Your task to perform on an android device: change alarm snooze length Image 0: 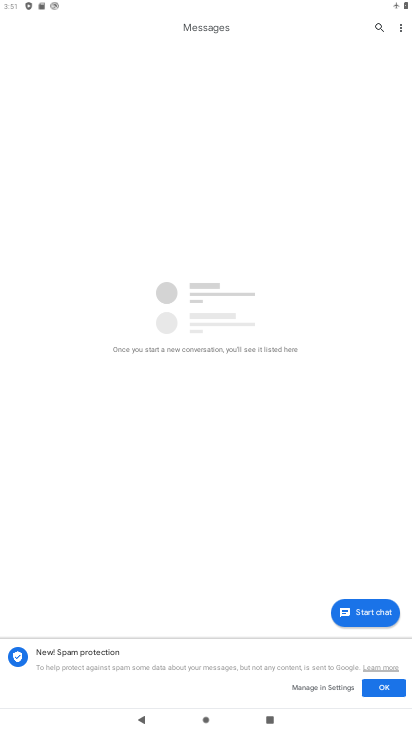
Step 0: press home button
Your task to perform on an android device: change alarm snooze length Image 1: 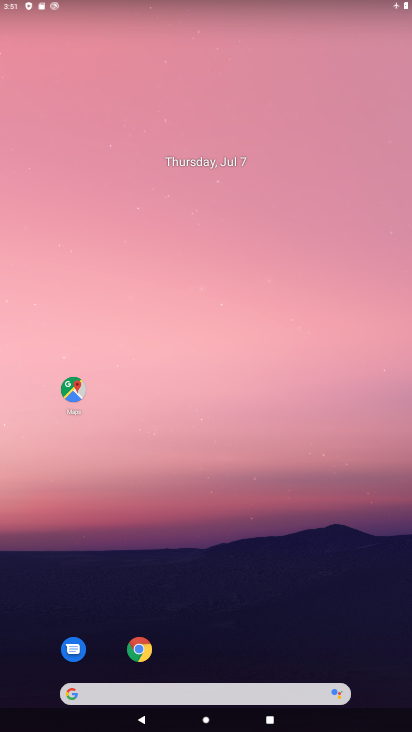
Step 1: click (292, 212)
Your task to perform on an android device: change alarm snooze length Image 2: 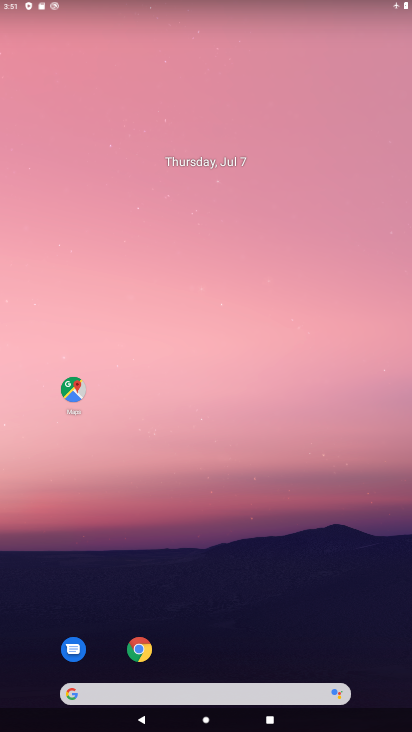
Step 2: drag from (180, 619) to (223, 195)
Your task to perform on an android device: change alarm snooze length Image 3: 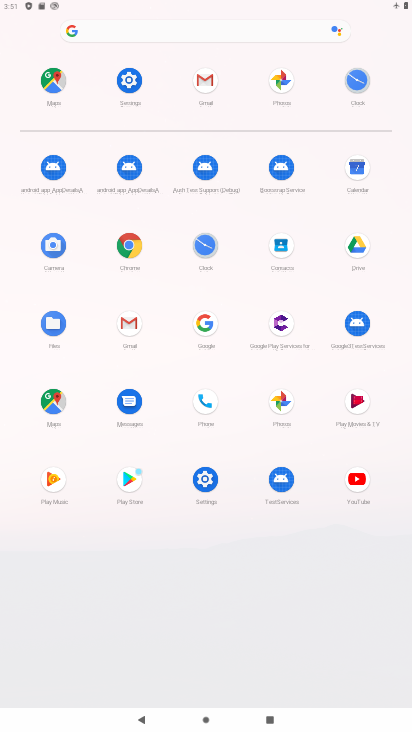
Step 3: click (207, 261)
Your task to perform on an android device: change alarm snooze length Image 4: 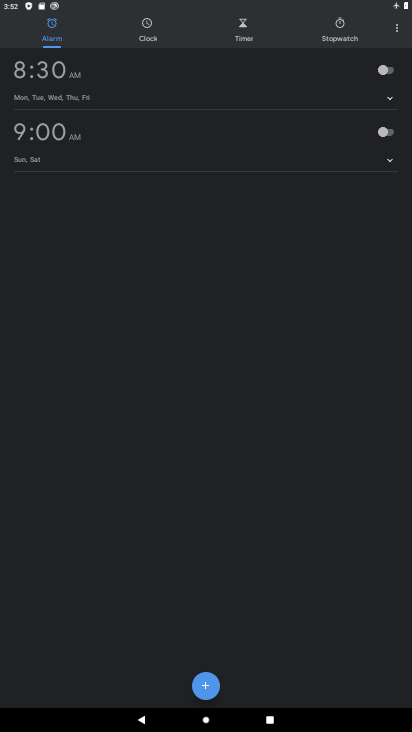
Step 4: click (397, 28)
Your task to perform on an android device: change alarm snooze length Image 5: 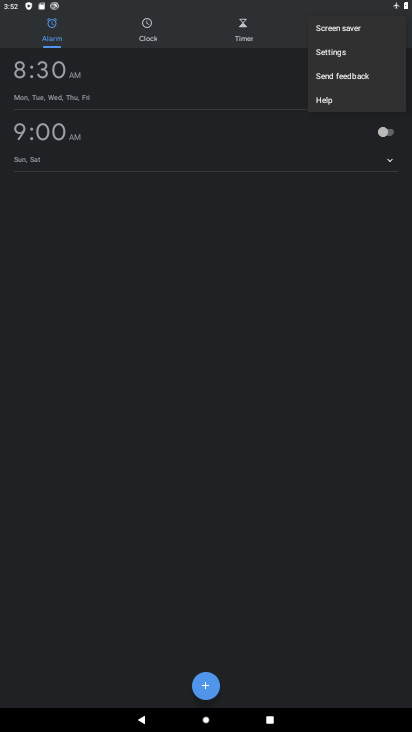
Step 5: click (333, 57)
Your task to perform on an android device: change alarm snooze length Image 6: 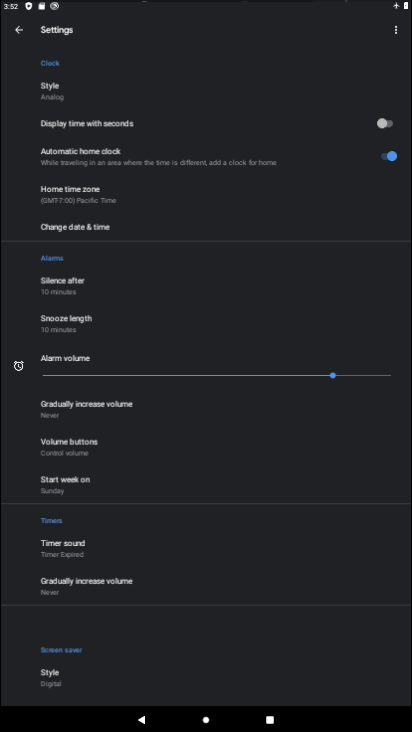
Step 6: click (334, 58)
Your task to perform on an android device: change alarm snooze length Image 7: 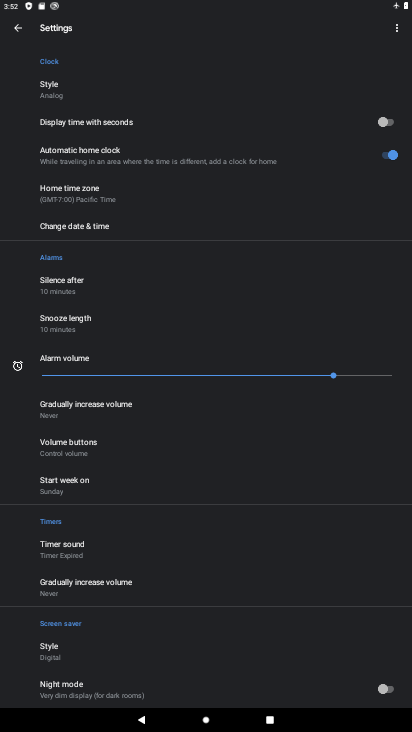
Step 7: click (89, 322)
Your task to perform on an android device: change alarm snooze length Image 8: 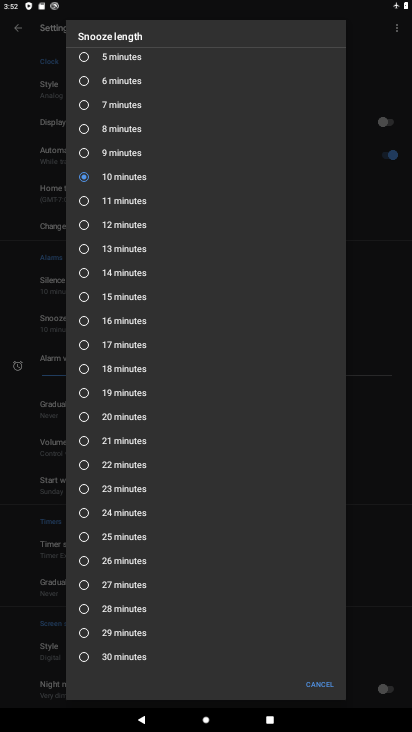
Step 8: click (100, 223)
Your task to perform on an android device: change alarm snooze length Image 9: 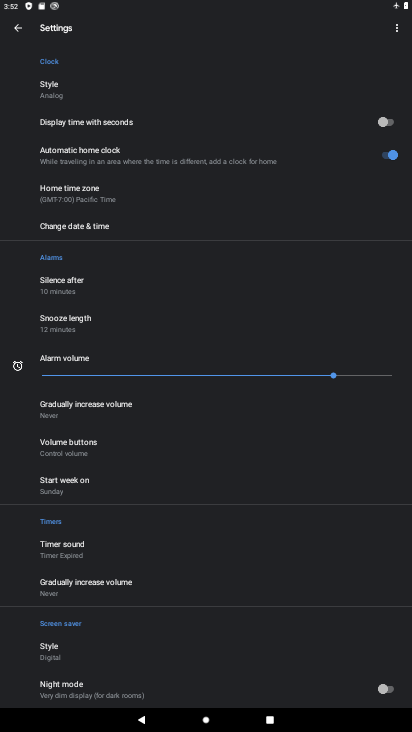
Step 9: task complete